Your task to perform on an android device: change the upload size in google photos Image 0: 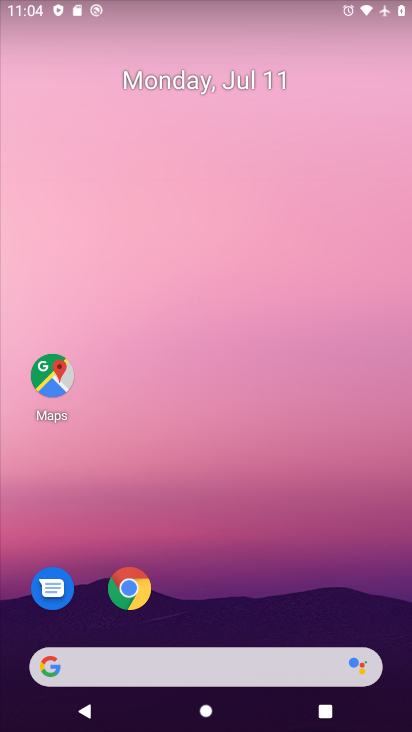
Step 0: drag from (218, 651) to (345, 94)
Your task to perform on an android device: change the upload size in google photos Image 1: 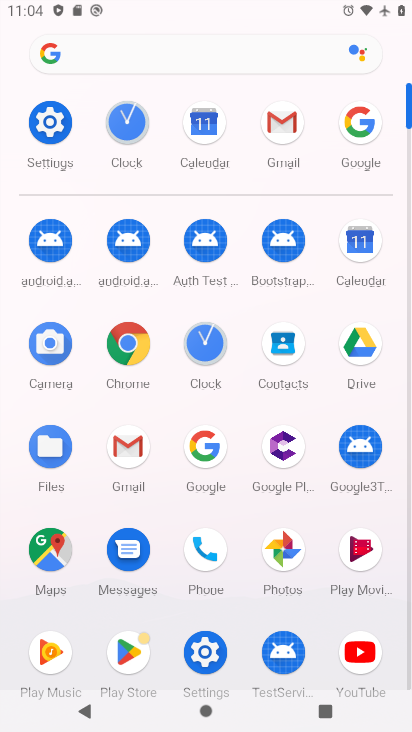
Step 1: click (283, 552)
Your task to perform on an android device: change the upload size in google photos Image 2: 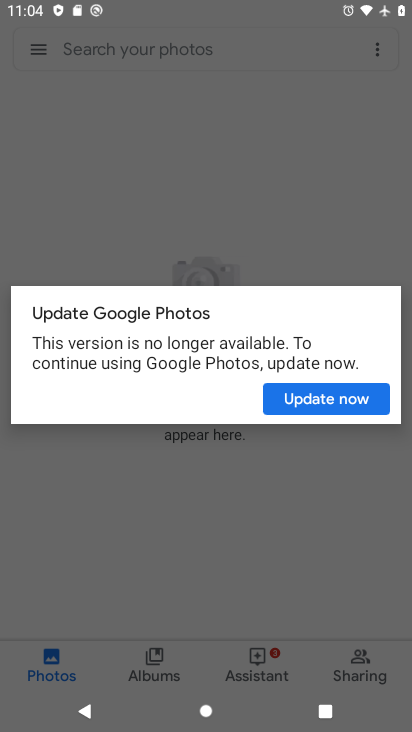
Step 2: click (352, 401)
Your task to perform on an android device: change the upload size in google photos Image 3: 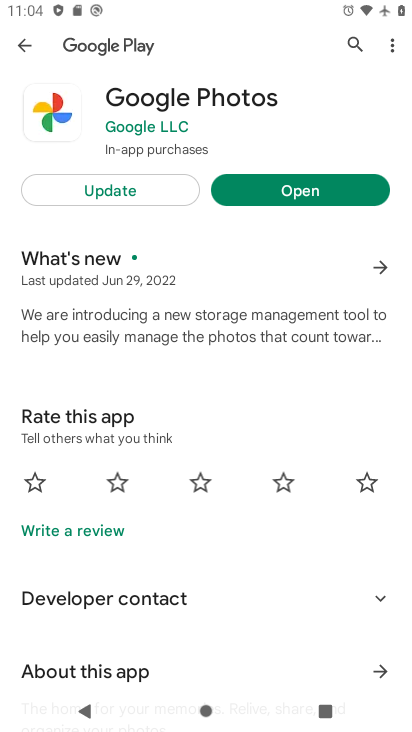
Step 3: click (321, 202)
Your task to perform on an android device: change the upload size in google photos Image 4: 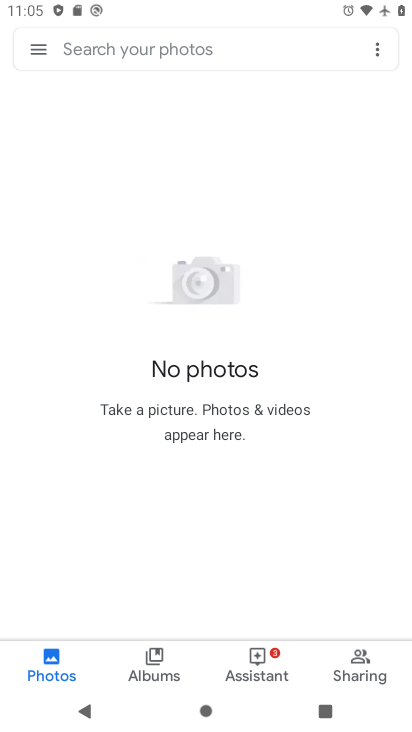
Step 4: click (38, 56)
Your task to perform on an android device: change the upload size in google photos Image 5: 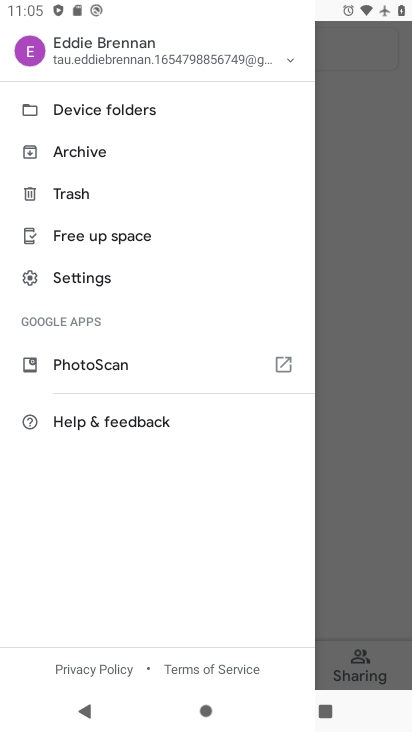
Step 5: click (87, 277)
Your task to perform on an android device: change the upload size in google photos Image 6: 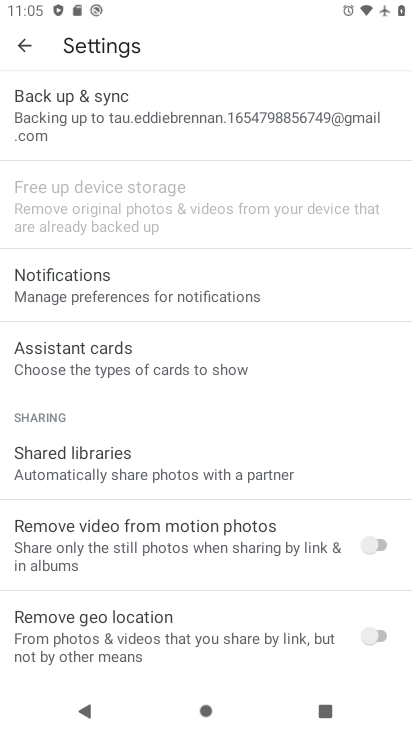
Step 6: click (193, 130)
Your task to perform on an android device: change the upload size in google photos Image 7: 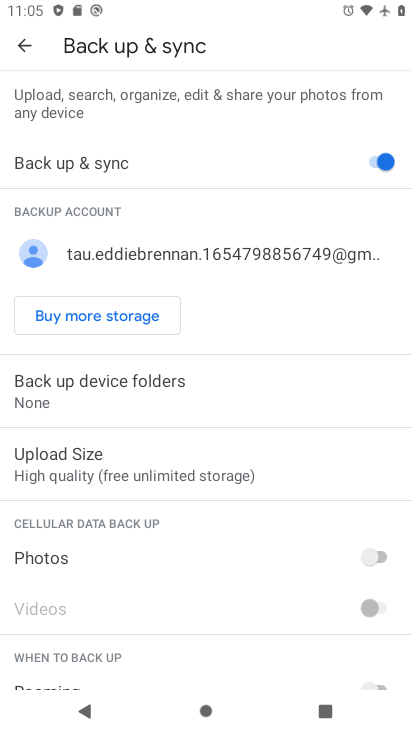
Step 7: click (158, 459)
Your task to perform on an android device: change the upload size in google photos Image 8: 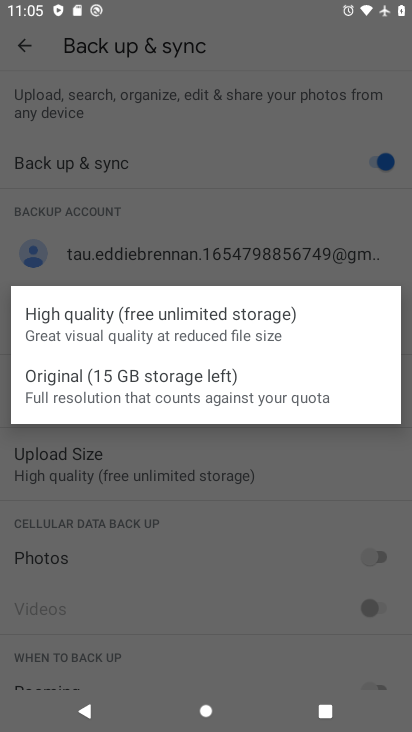
Step 8: click (115, 385)
Your task to perform on an android device: change the upload size in google photos Image 9: 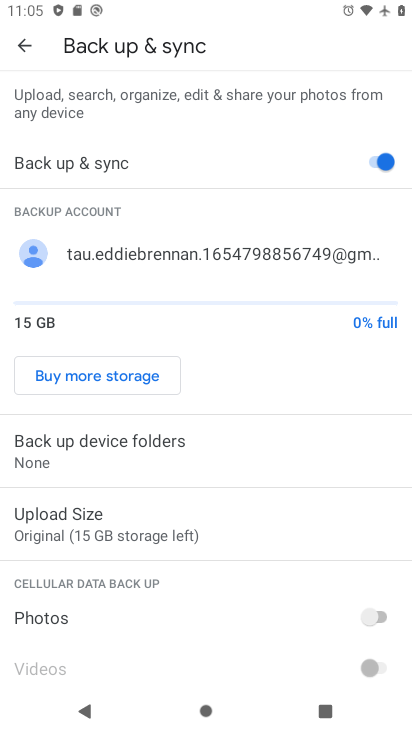
Step 9: task complete